Your task to perform on an android device: delete browsing data in the chrome app Image 0: 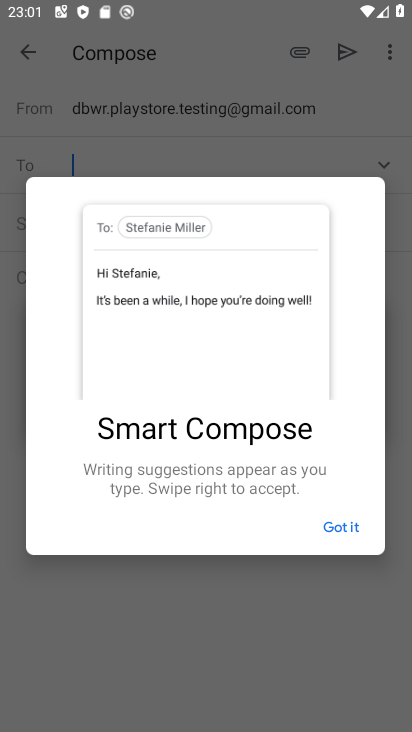
Step 0: press home button
Your task to perform on an android device: delete browsing data in the chrome app Image 1: 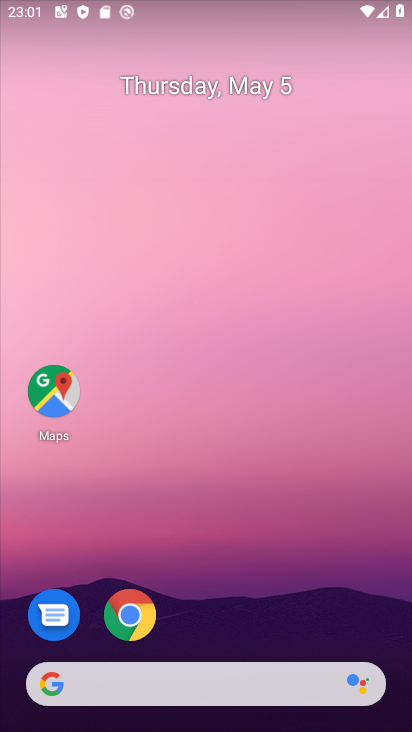
Step 1: drag from (223, 590) to (274, 138)
Your task to perform on an android device: delete browsing data in the chrome app Image 2: 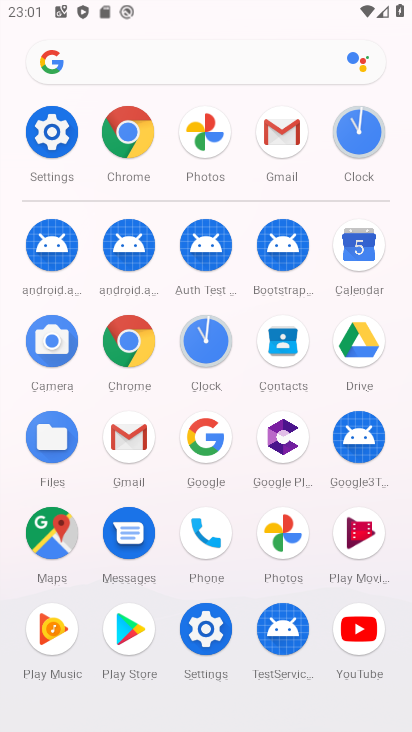
Step 2: click (128, 133)
Your task to perform on an android device: delete browsing data in the chrome app Image 3: 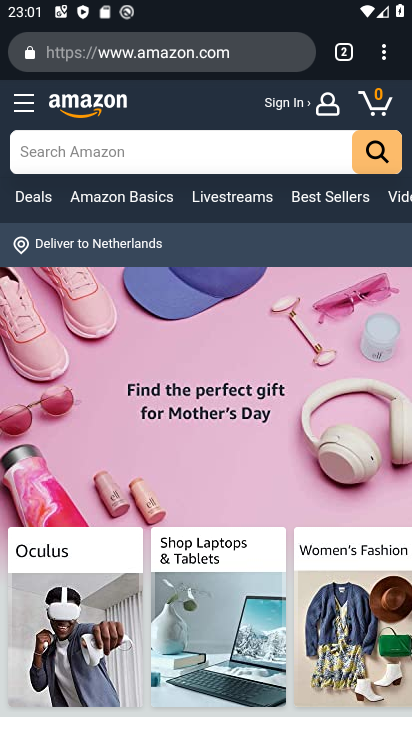
Step 3: click (374, 56)
Your task to perform on an android device: delete browsing data in the chrome app Image 4: 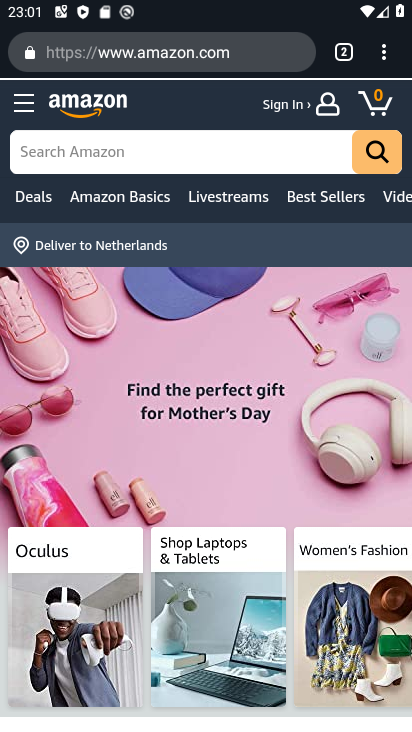
Step 4: click (378, 54)
Your task to perform on an android device: delete browsing data in the chrome app Image 5: 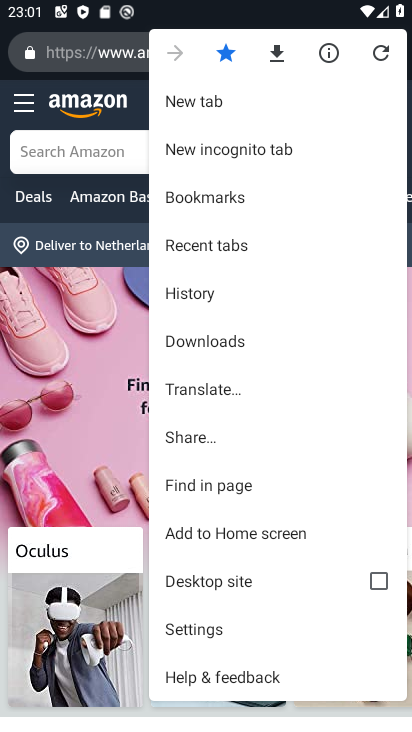
Step 5: click (196, 613)
Your task to perform on an android device: delete browsing data in the chrome app Image 6: 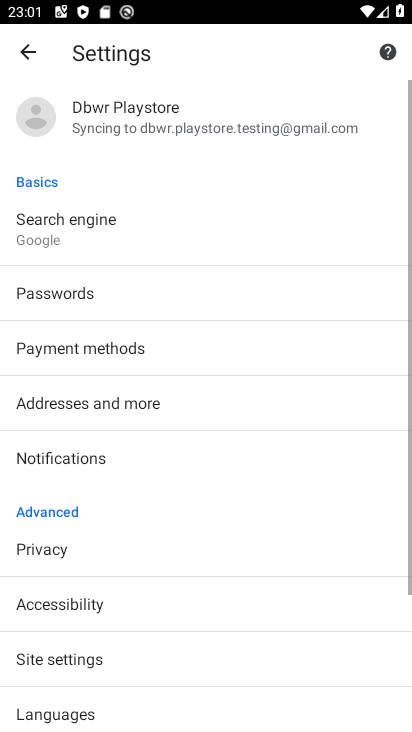
Step 6: click (100, 560)
Your task to perform on an android device: delete browsing data in the chrome app Image 7: 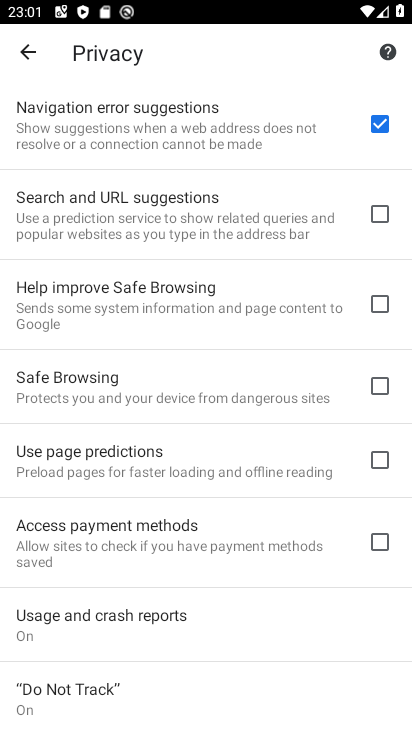
Step 7: drag from (176, 636) to (246, 176)
Your task to perform on an android device: delete browsing data in the chrome app Image 8: 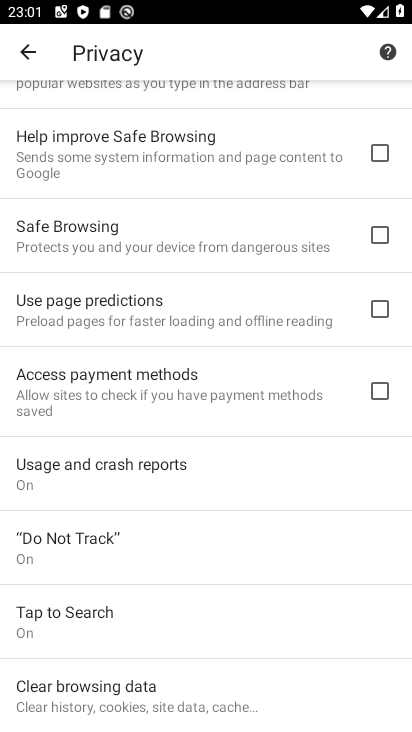
Step 8: click (98, 699)
Your task to perform on an android device: delete browsing data in the chrome app Image 9: 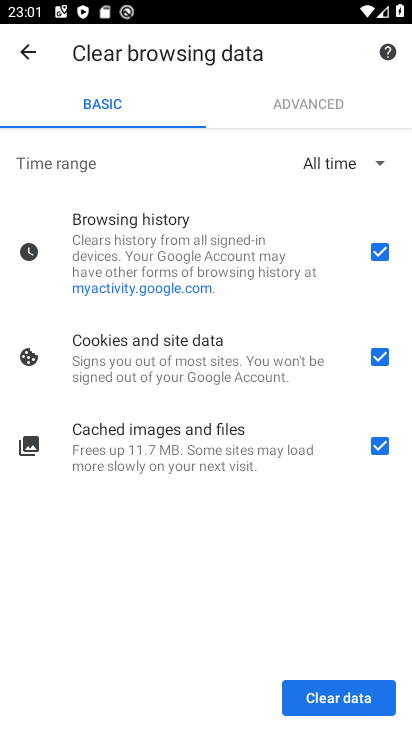
Step 9: click (385, 350)
Your task to perform on an android device: delete browsing data in the chrome app Image 10: 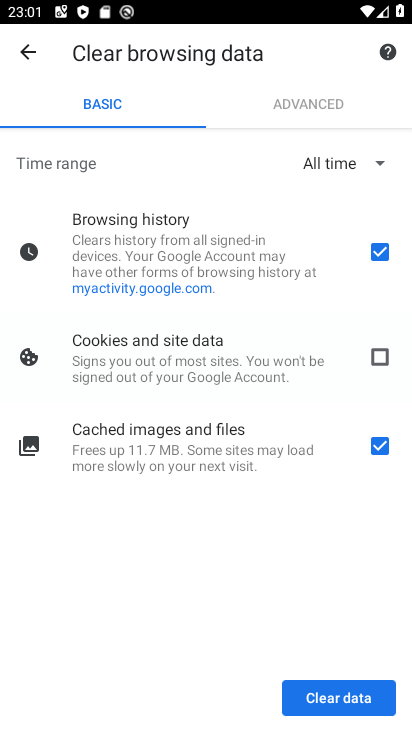
Step 10: click (383, 444)
Your task to perform on an android device: delete browsing data in the chrome app Image 11: 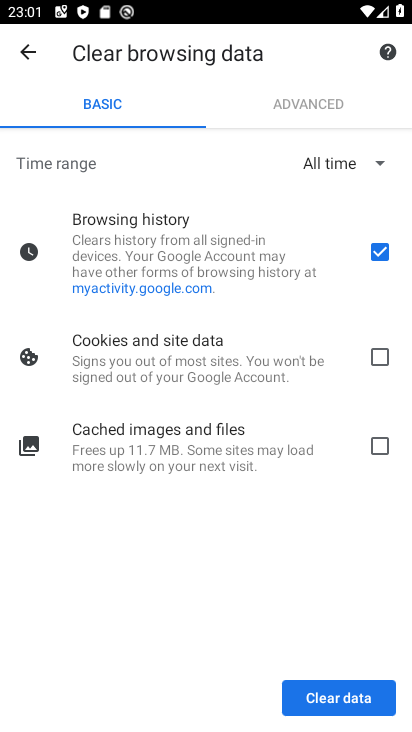
Step 11: click (315, 694)
Your task to perform on an android device: delete browsing data in the chrome app Image 12: 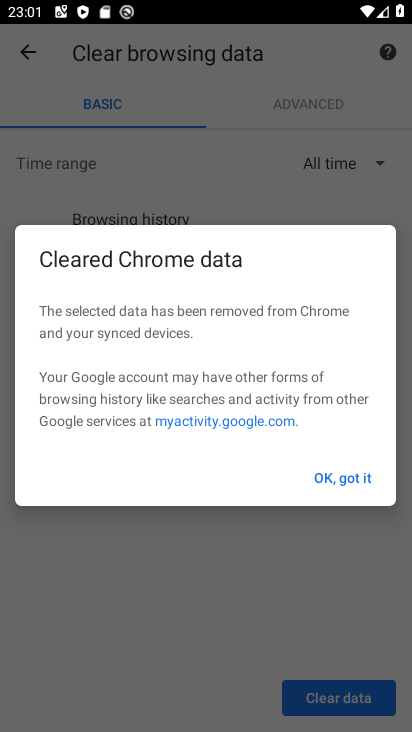
Step 12: click (319, 476)
Your task to perform on an android device: delete browsing data in the chrome app Image 13: 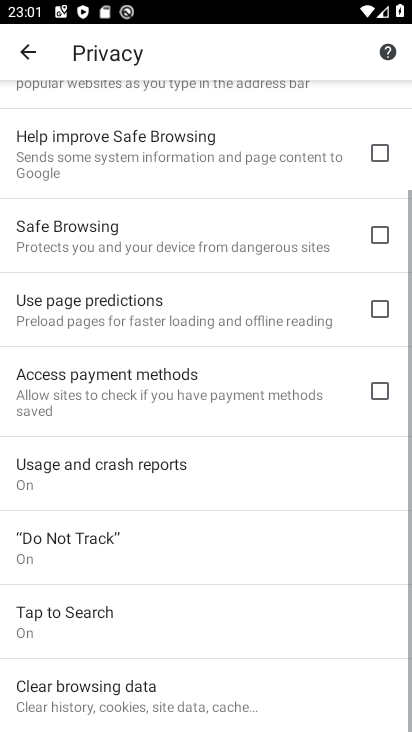
Step 13: task complete